Your task to perform on an android device: What's the weather? Image 0: 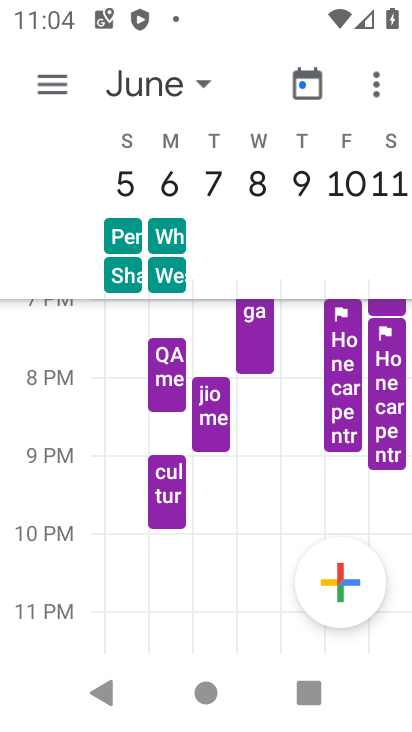
Step 0: press home button
Your task to perform on an android device: What's the weather? Image 1: 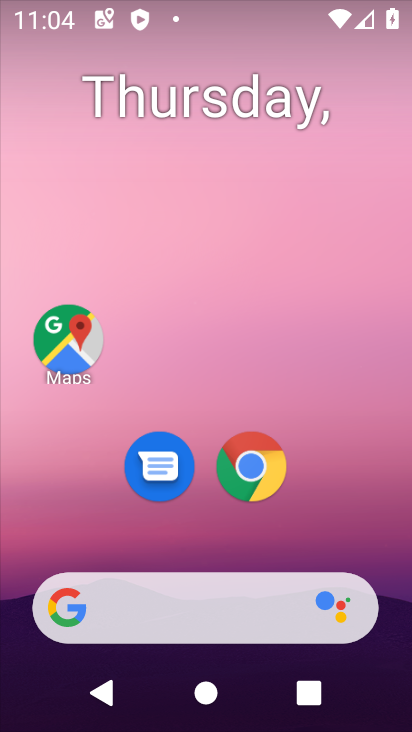
Step 1: click (193, 624)
Your task to perform on an android device: What's the weather? Image 2: 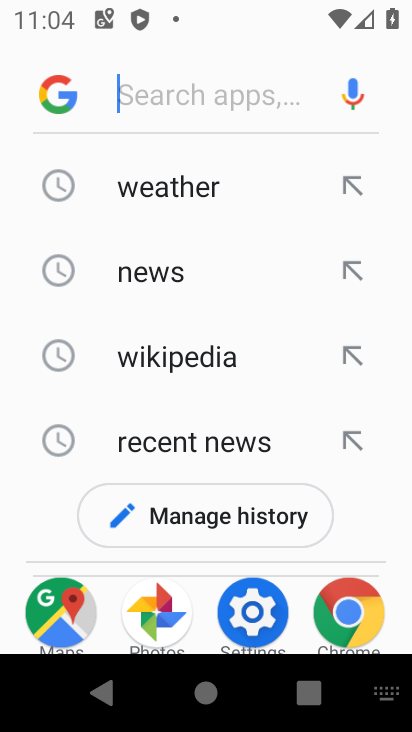
Step 2: click (146, 209)
Your task to perform on an android device: What's the weather? Image 3: 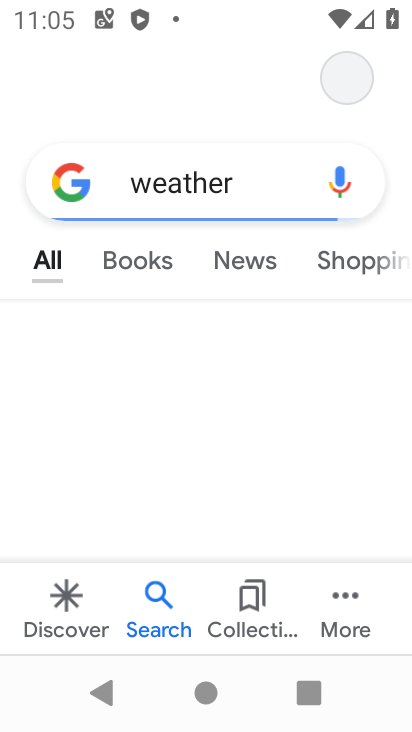
Step 3: task complete